Your task to perform on an android device: Open notification settings Image 0: 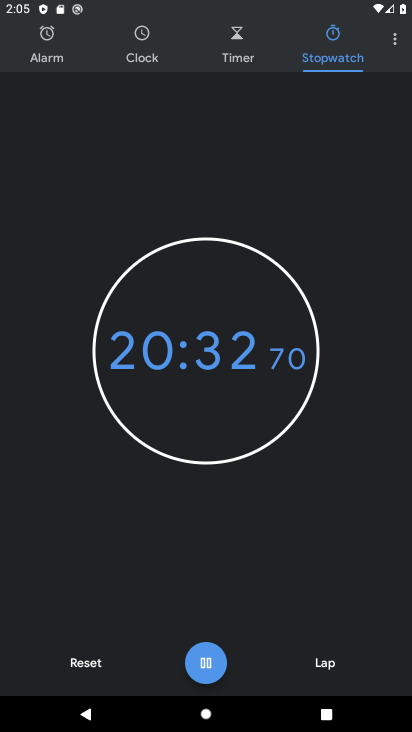
Step 0: press home button
Your task to perform on an android device: Open notification settings Image 1: 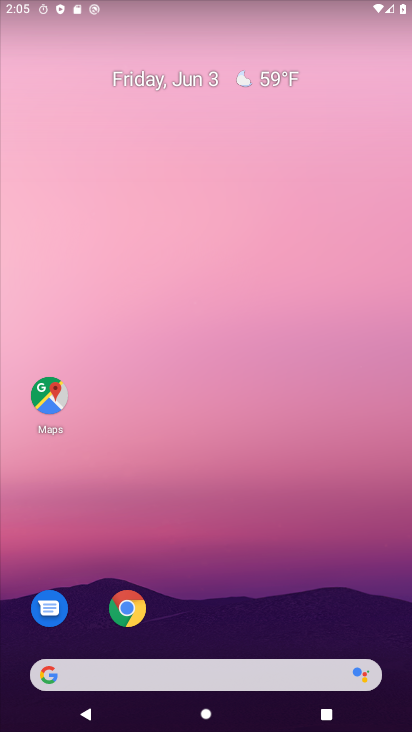
Step 1: drag from (213, 662) to (196, 222)
Your task to perform on an android device: Open notification settings Image 2: 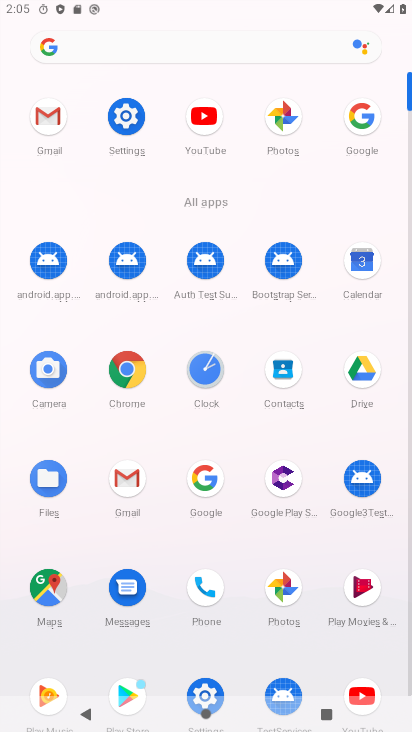
Step 2: click (135, 121)
Your task to perform on an android device: Open notification settings Image 3: 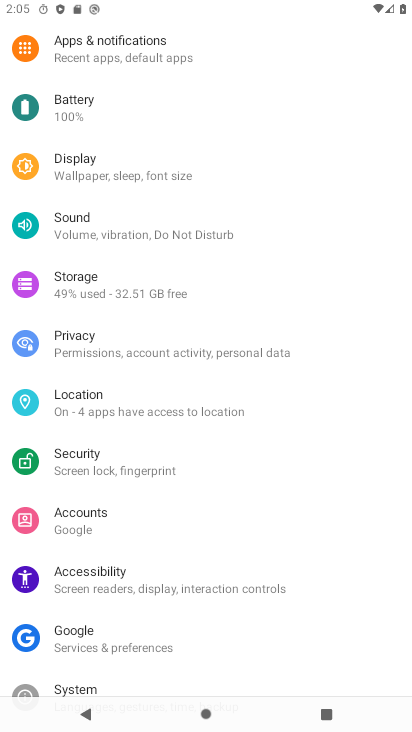
Step 3: click (122, 42)
Your task to perform on an android device: Open notification settings Image 4: 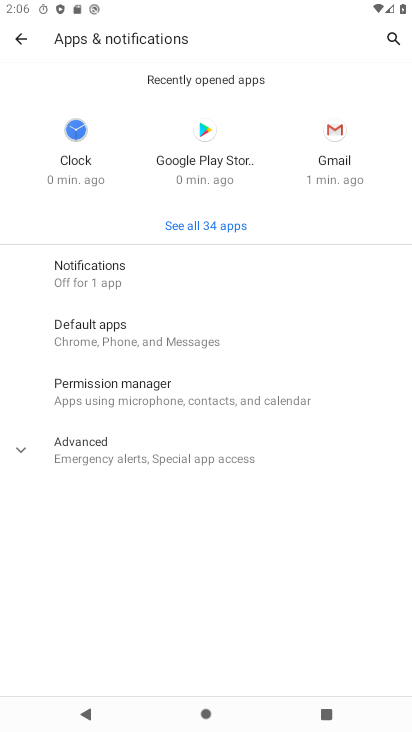
Step 4: task complete